Your task to perform on an android device: turn off airplane mode Image 0: 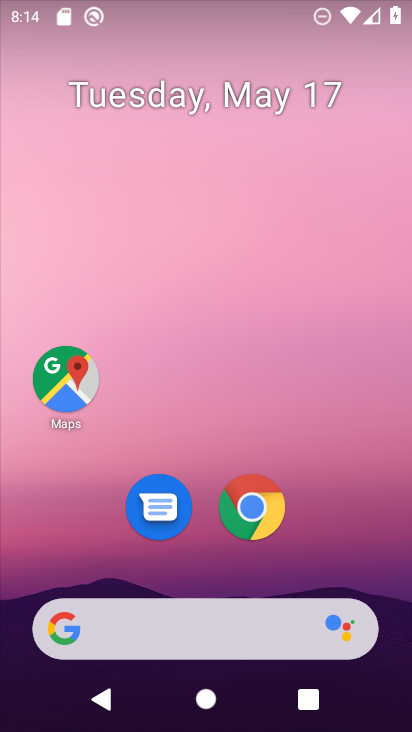
Step 0: drag from (345, 596) to (383, 6)
Your task to perform on an android device: turn off airplane mode Image 1: 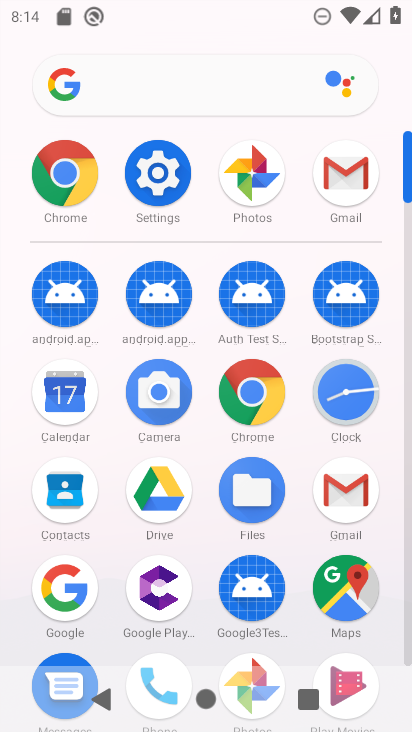
Step 1: click (158, 172)
Your task to perform on an android device: turn off airplane mode Image 2: 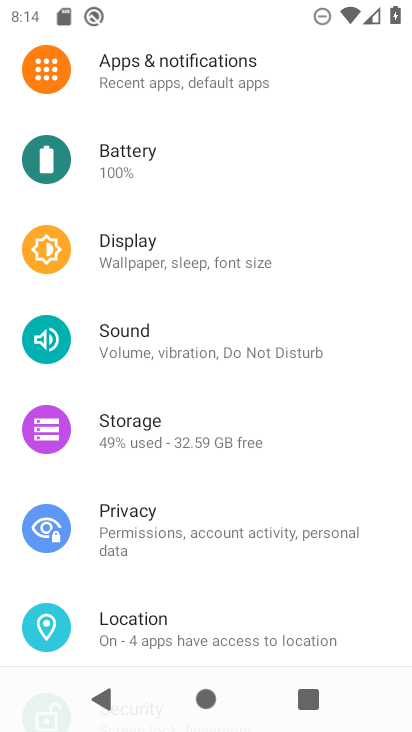
Step 2: drag from (208, 185) to (221, 404)
Your task to perform on an android device: turn off airplane mode Image 3: 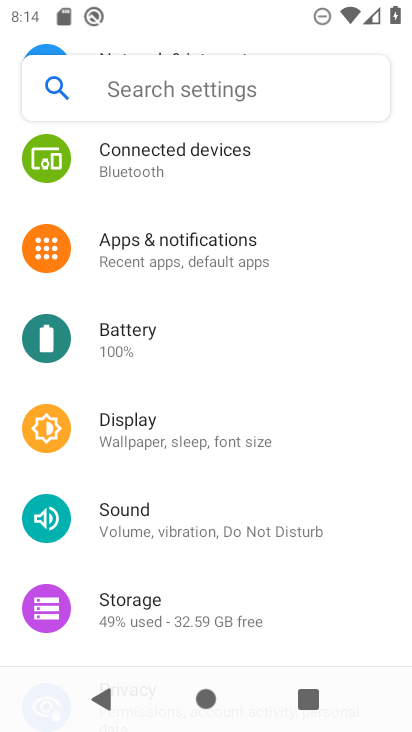
Step 3: drag from (248, 227) to (259, 422)
Your task to perform on an android device: turn off airplane mode Image 4: 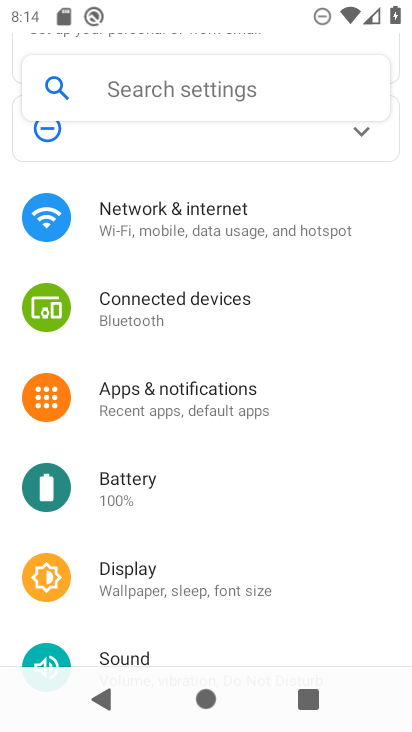
Step 4: click (153, 229)
Your task to perform on an android device: turn off airplane mode Image 5: 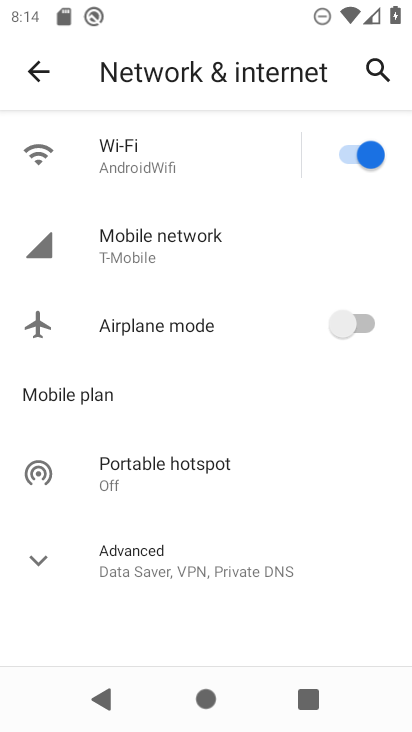
Step 5: task complete